Your task to perform on an android device: Go to wifi settings Image 0: 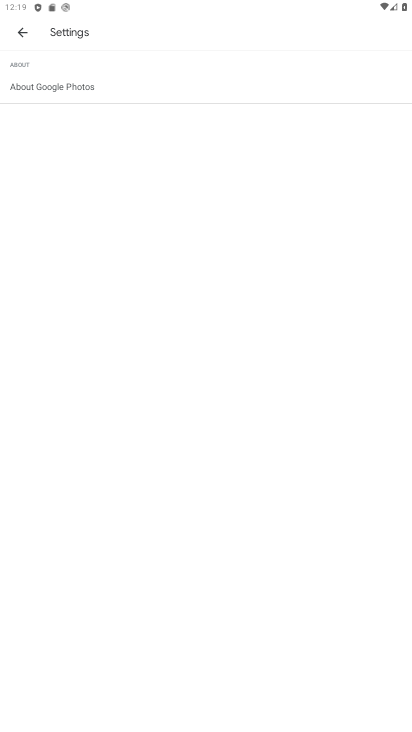
Step 0: press home button
Your task to perform on an android device: Go to wifi settings Image 1: 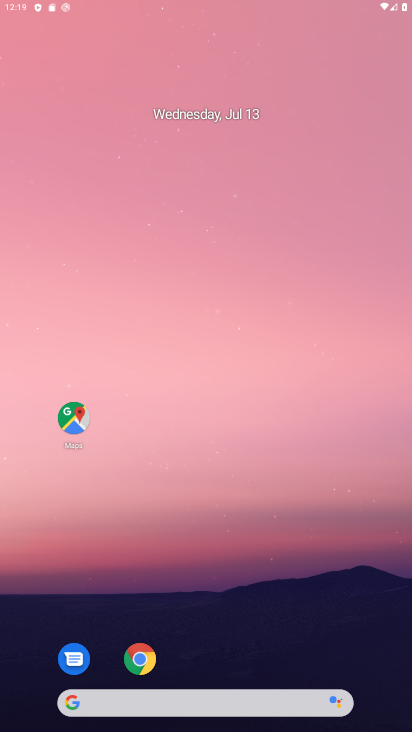
Step 1: drag from (380, 0) to (184, 350)
Your task to perform on an android device: Go to wifi settings Image 2: 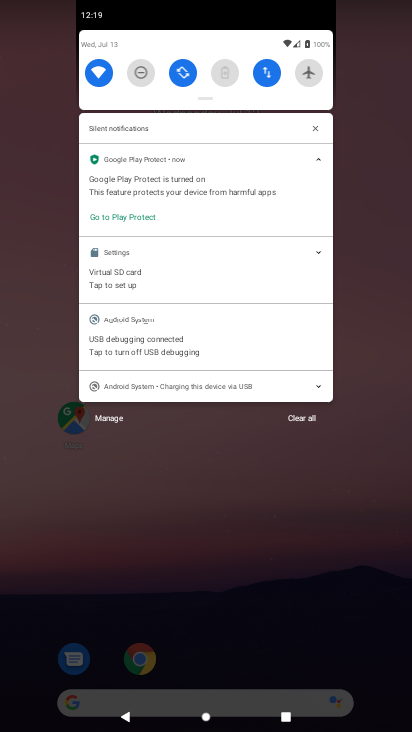
Step 2: click (99, 62)
Your task to perform on an android device: Go to wifi settings Image 3: 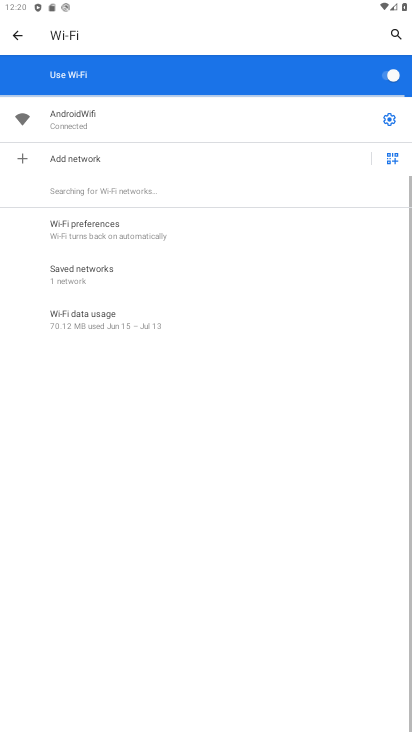
Step 3: task complete